Your task to perform on an android device: add a contact in the contacts app Image 0: 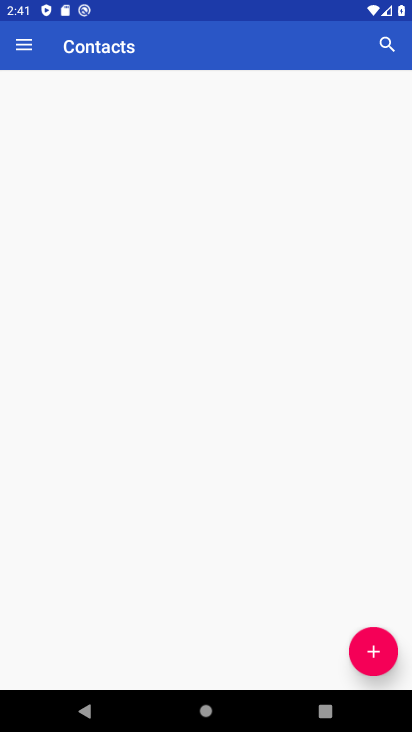
Step 0: drag from (270, 684) to (275, 304)
Your task to perform on an android device: add a contact in the contacts app Image 1: 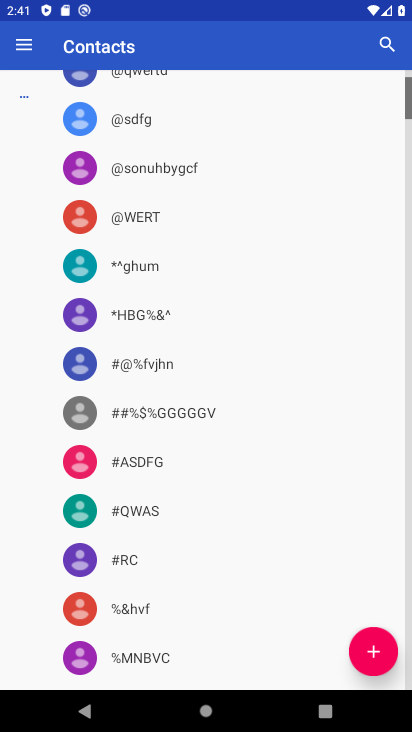
Step 1: press home button
Your task to perform on an android device: add a contact in the contacts app Image 2: 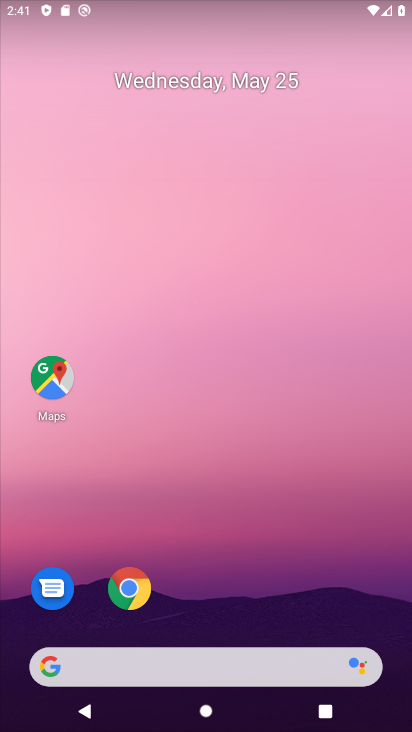
Step 2: drag from (253, 656) to (234, 159)
Your task to perform on an android device: add a contact in the contacts app Image 3: 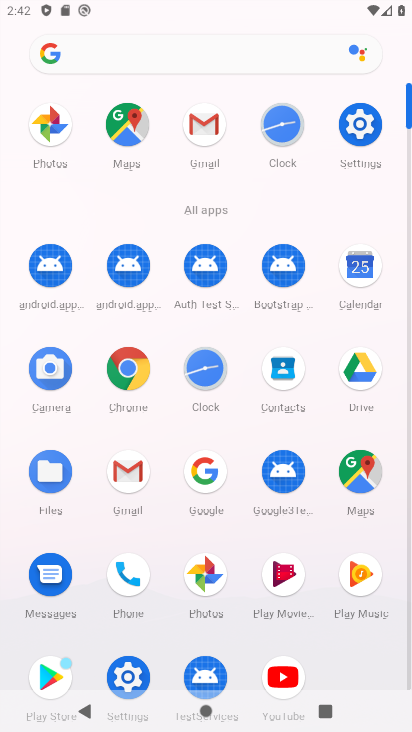
Step 3: click (138, 580)
Your task to perform on an android device: add a contact in the contacts app Image 4: 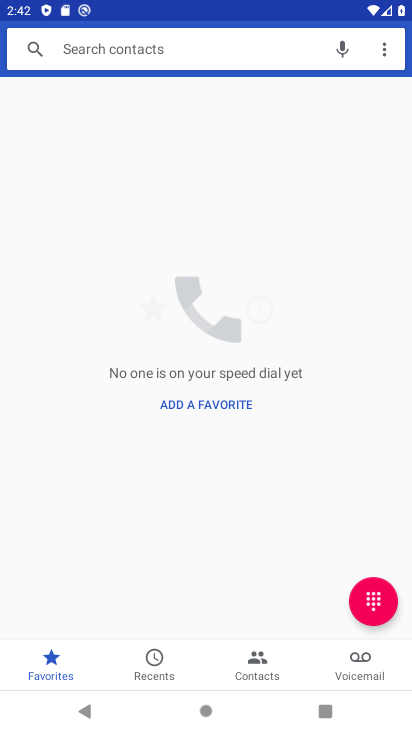
Step 4: click (265, 647)
Your task to perform on an android device: add a contact in the contacts app Image 5: 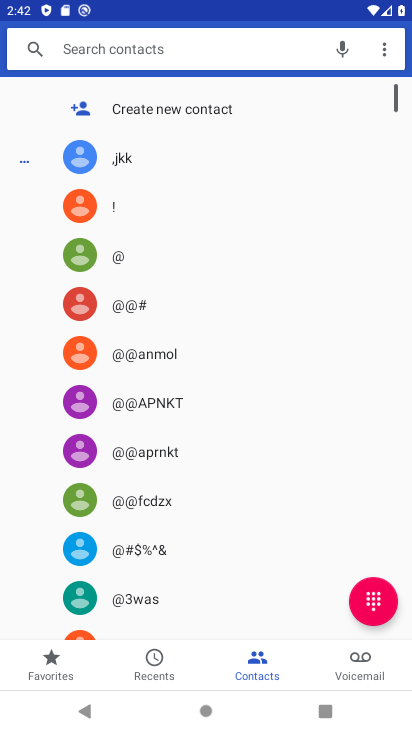
Step 5: click (204, 106)
Your task to perform on an android device: add a contact in the contacts app Image 6: 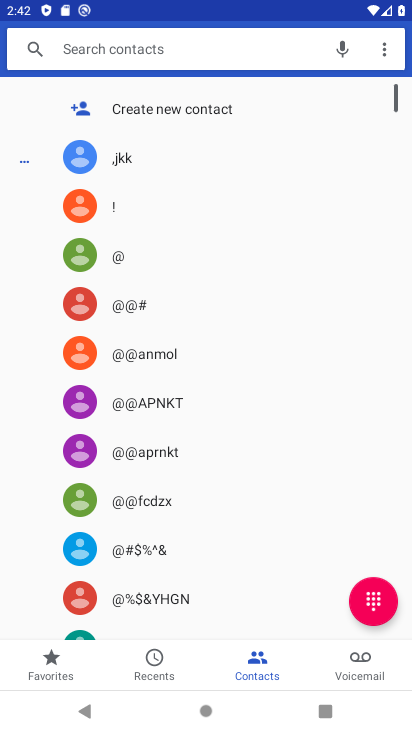
Step 6: click (170, 107)
Your task to perform on an android device: add a contact in the contacts app Image 7: 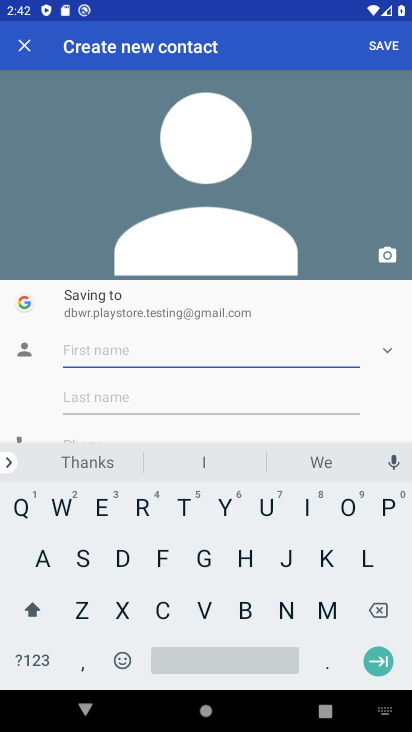
Step 7: click (163, 534)
Your task to perform on an android device: add a contact in the contacts app Image 8: 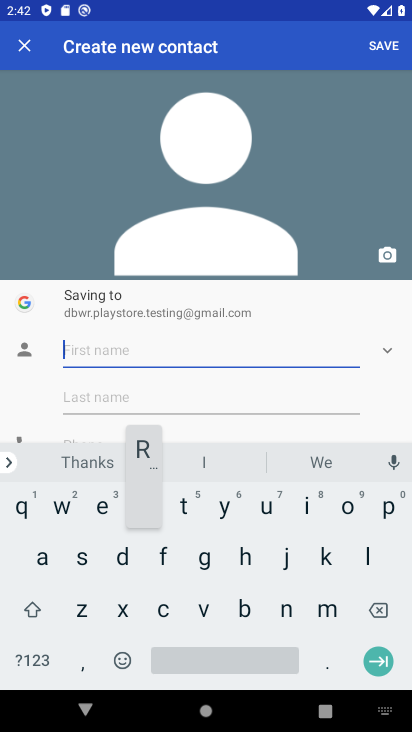
Step 8: click (227, 542)
Your task to perform on an android device: add a contact in the contacts app Image 9: 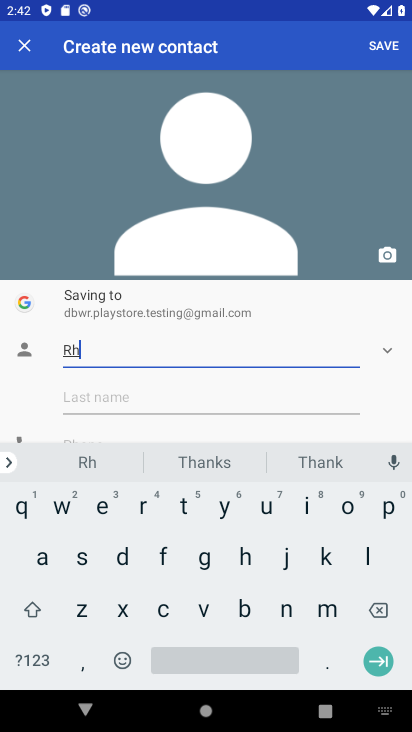
Step 9: click (260, 561)
Your task to perform on an android device: add a contact in the contacts app Image 10: 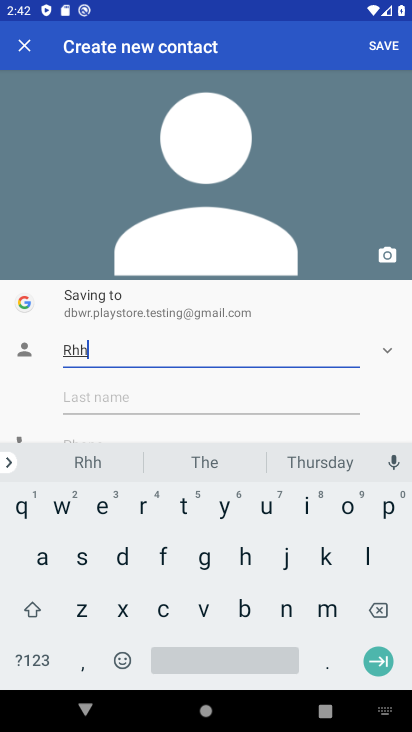
Step 10: click (158, 560)
Your task to perform on an android device: add a contact in the contacts app Image 11: 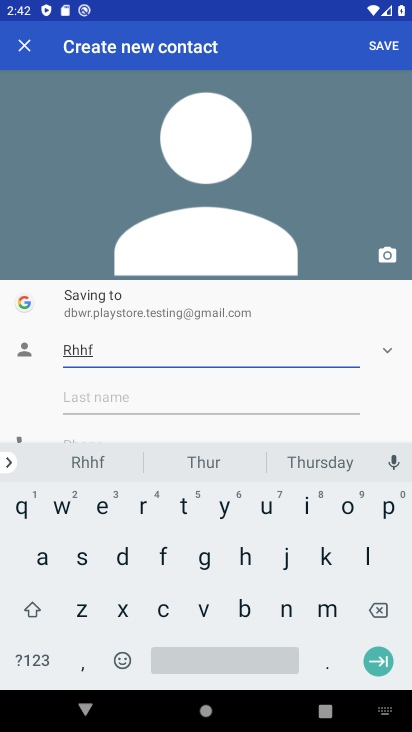
Step 11: click (166, 421)
Your task to perform on an android device: add a contact in the contacts app Image 12: 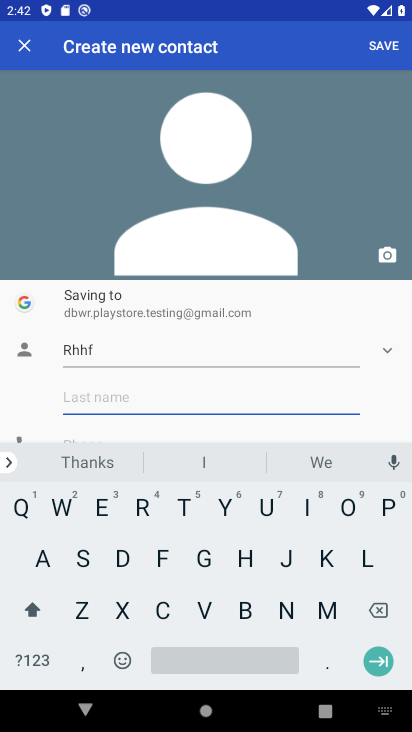
Step 12: click (145, 542)
Your task to perform on an android device: add a contact in the contacts app Image 13: 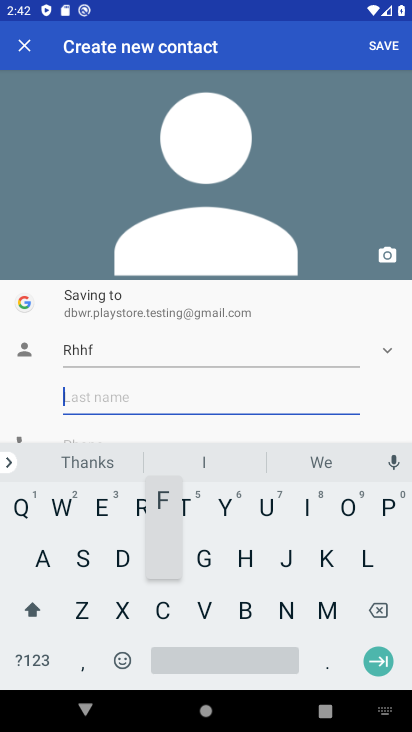
Step 13: click (124, 564)
Your task to perform on an android device: add a contact in the contacts app Image 14: 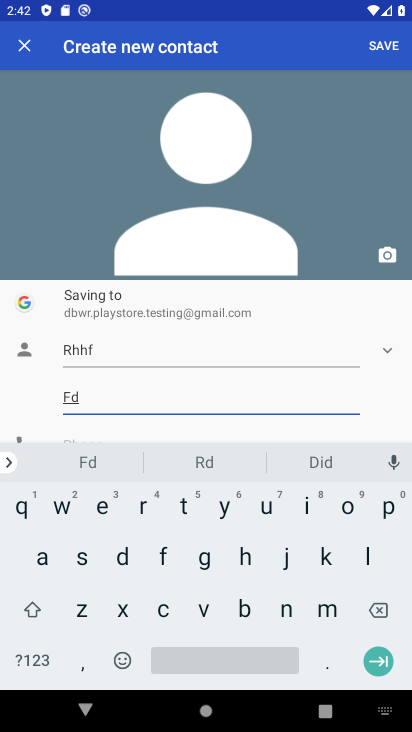
Step 14: click (158, 420)
Your task to perform on an android device: add a contact in the contacts app Image 15: 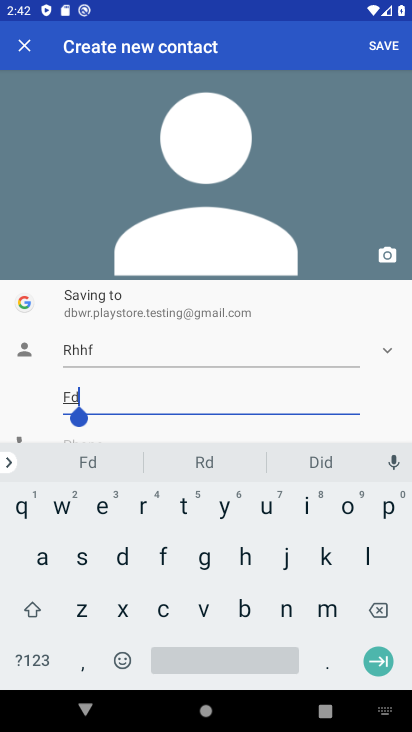
Step 15: click (124, 438)
Your task to perform on an android device: add a contact in the contacts app Image 16: 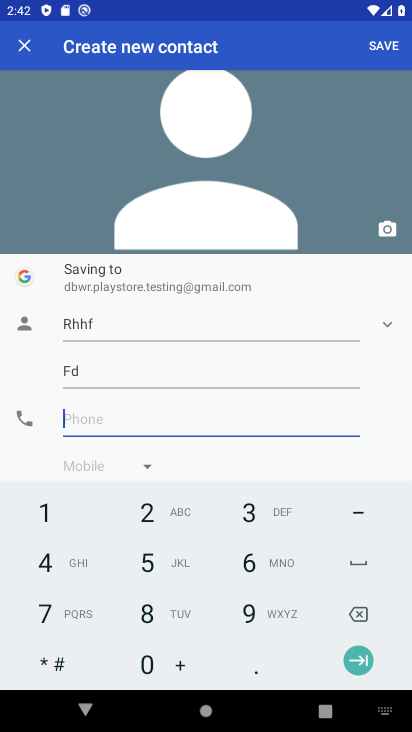
Step 16: click (169, 549)
Your task to perform on an android device: add a contact in the contacts app Image 17: 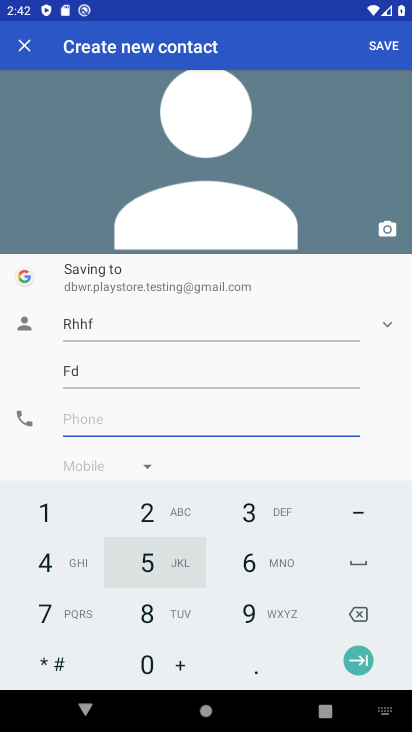
Step 17: click (129, 580)
Your task to perform on an android device: add a contact in the contacts app Image 18: 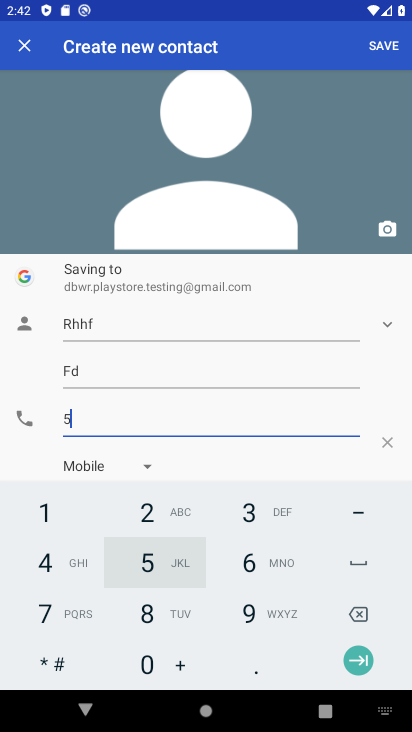
Step 18: click (52, 553)
Your task to perform on an android device: add a contact in the contacts app Image 19: 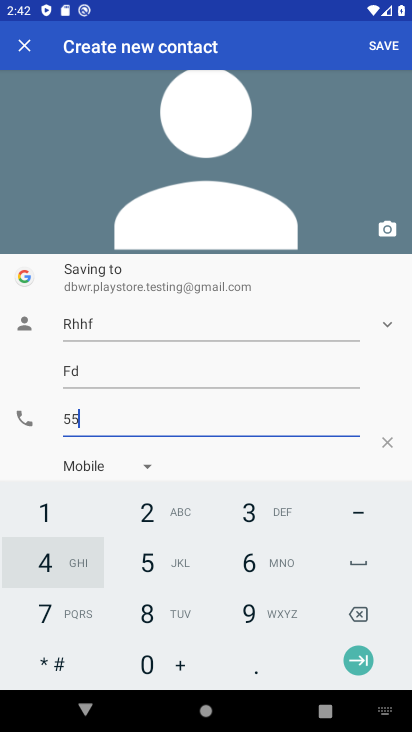
Step 19: click (135, 610)
Your task to perform on an android device: add a contact in the contacts app Image 20: 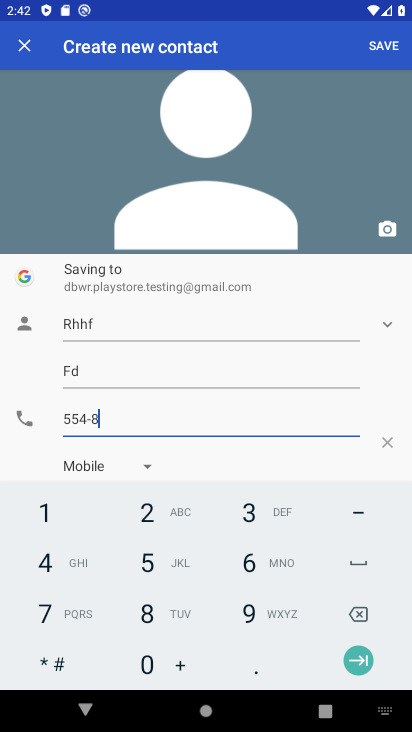
Step 20: click (166, 535)
Your task to perform on an android device: add a contact in the contacts app Image 21: 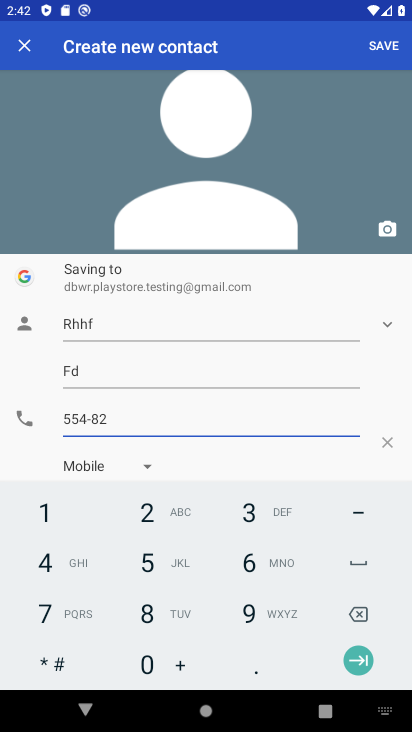
Step 21: click (378, 36)
Your task to perform on an android device: add a contact in the contacts app Image 22: 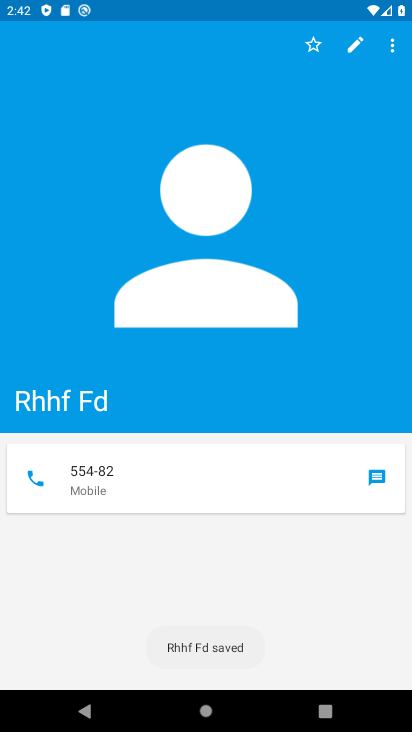
Step 22: task complete